Your task to perform on an android device: add a contact Image 0: 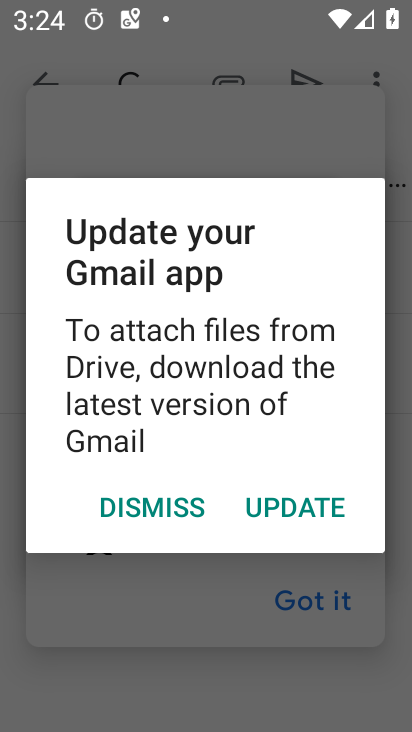
Step 0: press home button
Your task to perform on an android device: add a contact Image 1: 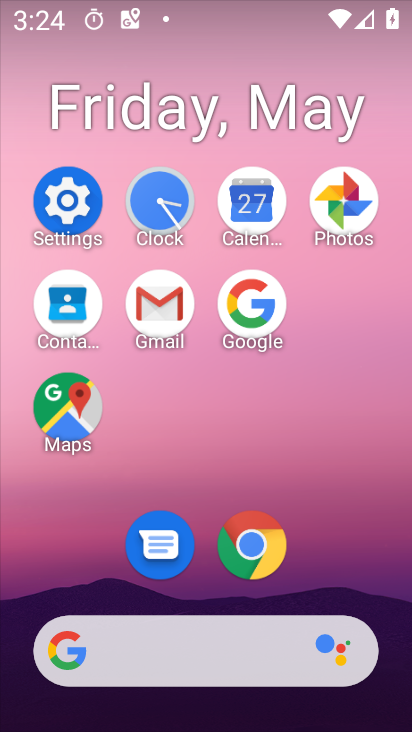
Step 1: click (85, 342)
Your task to perform on an android device: add a contact Image 2: 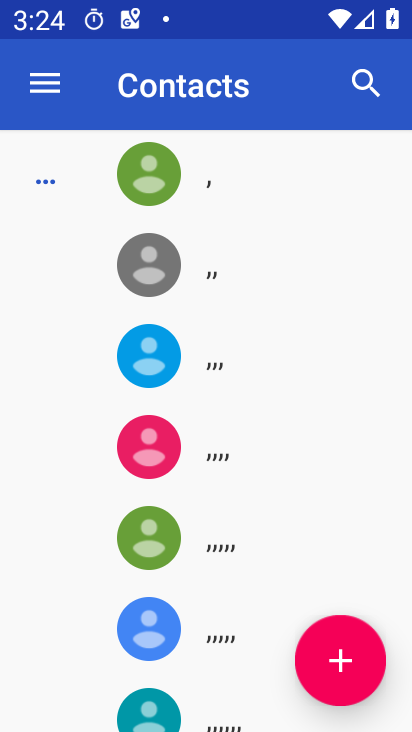
Step 2: click (360, 691)
Your task to perform on an android device: add a contact Image 3: 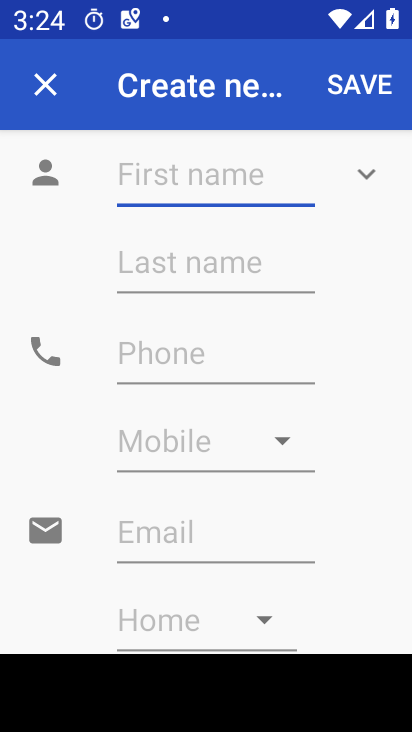
Step 3: type "ddv"
Your task to perform on an android device: add a contact Image 4: 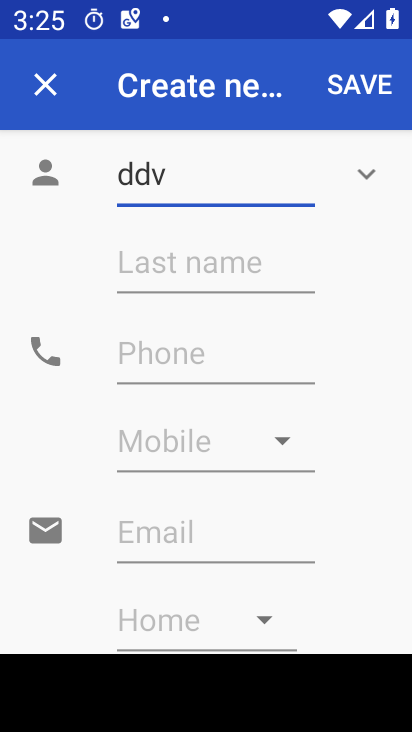
Step 4: click (200, 356)
Your task to perform on an android device: add a contact Image 5: 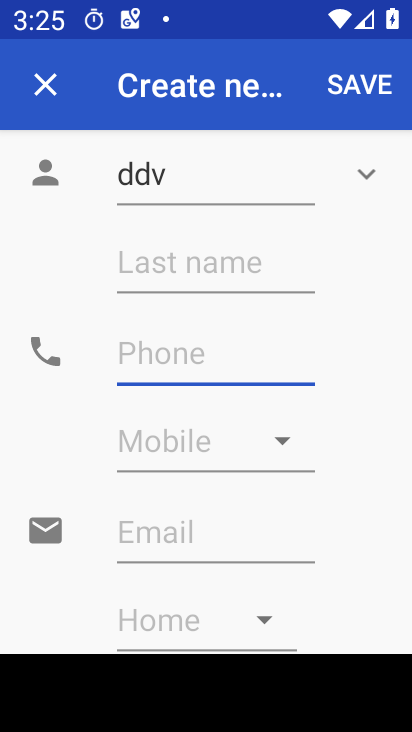
Step 5: type "8877665543"
Your task to perform on an android device: add a contact Image 6: 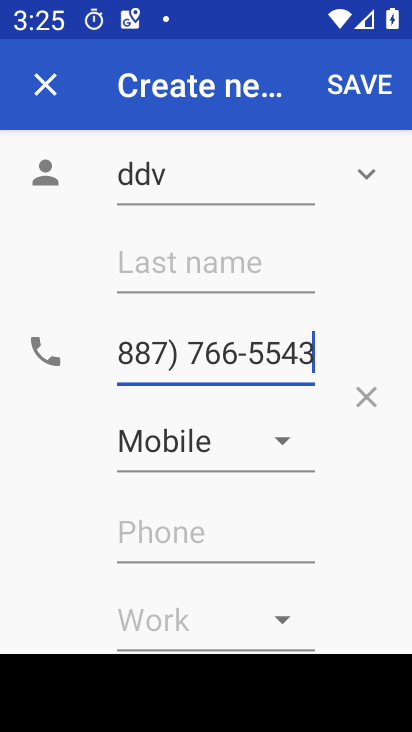
Step 6: click (354, 87)
Your task to perform on an android device: add a contact Image 7: 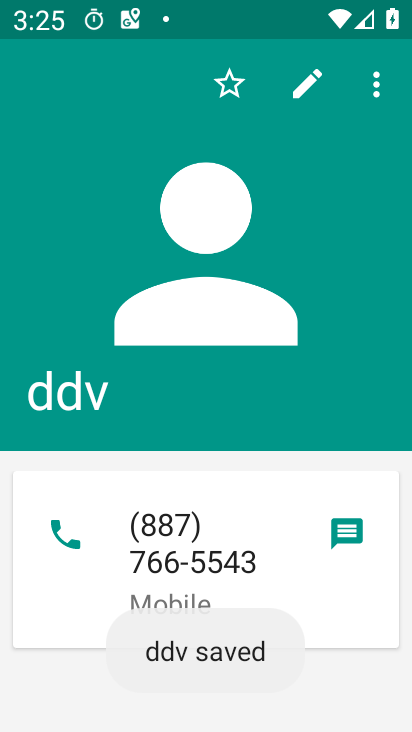
Step 7: task complete